Your task to perform on an android device: Toggle the flashlight Image 0: 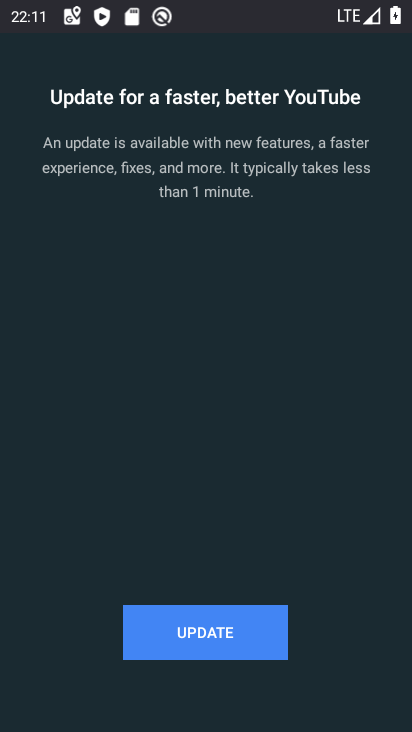
Step 0: press home button
Your task to perform on an android device: Toggle the flashlight Image 1: 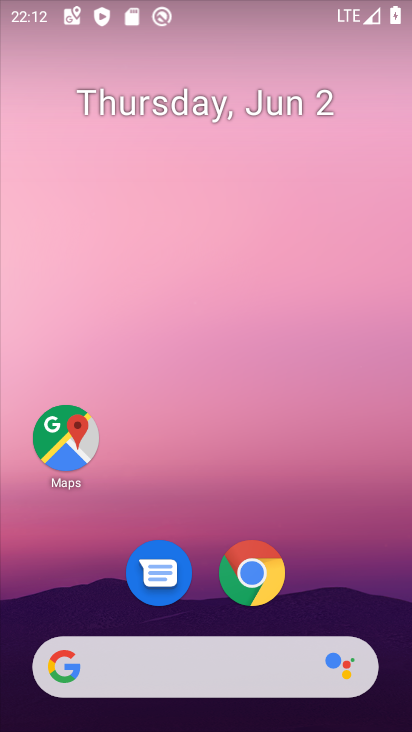
Step 1: drag from (331, 575) to (320, 63)
Your task to perform on an android device: Toggle the flashlight Image 2: 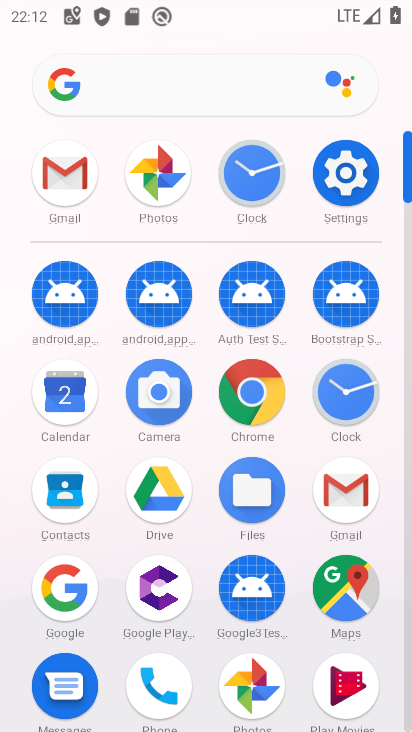
Step 2: click (346, 173)
Your task to perform on an android device: Toggle the flashlight Image 3: 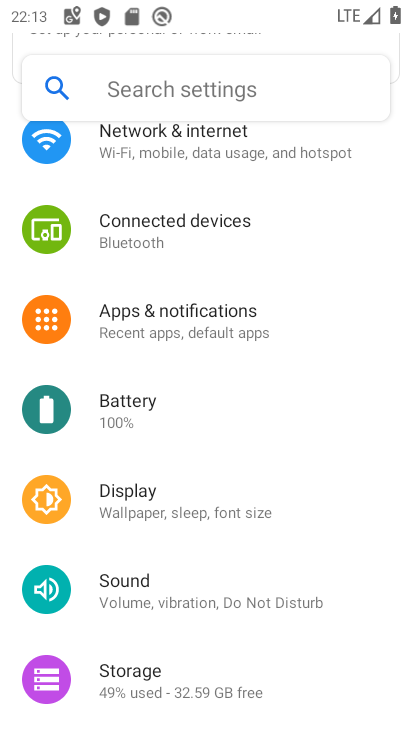
Step 3: click (211, 324)
Your task to perform on an android device: Toggle the flashlight Image 4: 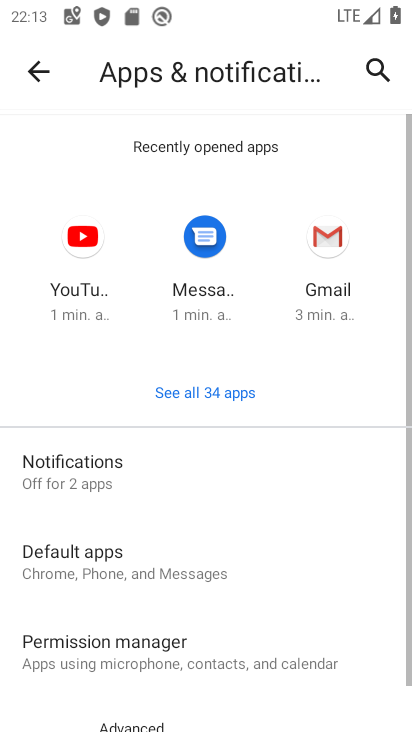
Step 4: drag from (299, 545) to (251, 236)
Your task to perform on an android device: Toggle the flashlight Image 5: 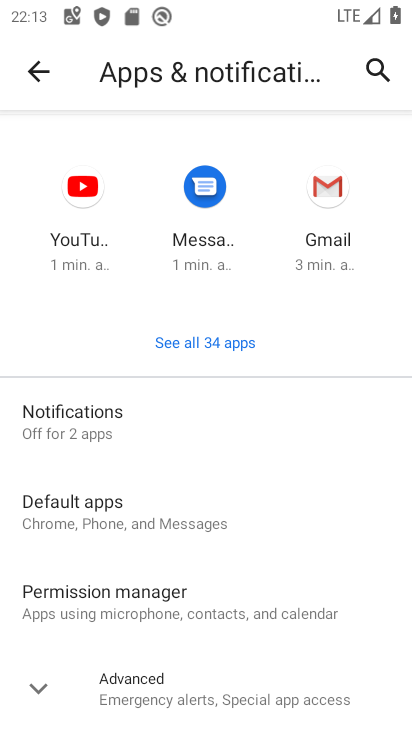
Step 5: click (229, 686)
Your task to perform on an android device: Toggle the flashlight Image 6: 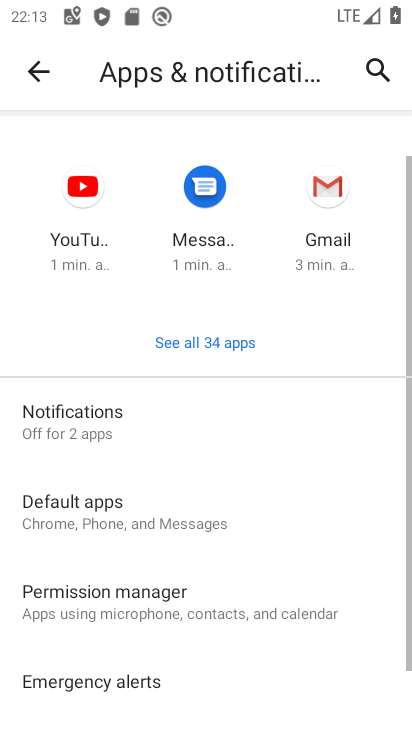
Step 6: drag from (265, 672) to (287, 370)
Your task to perform on an android device: Toggle the flashlight Image 7: 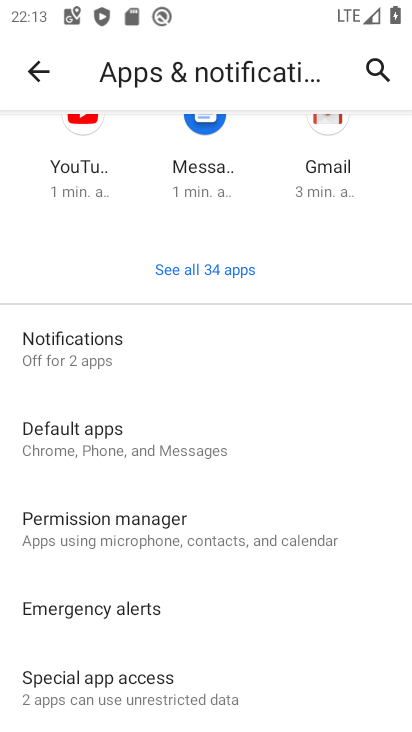
Step 7: click (170, 692)
Your task to perform on an android device: Toggle the flashlight Image 8: 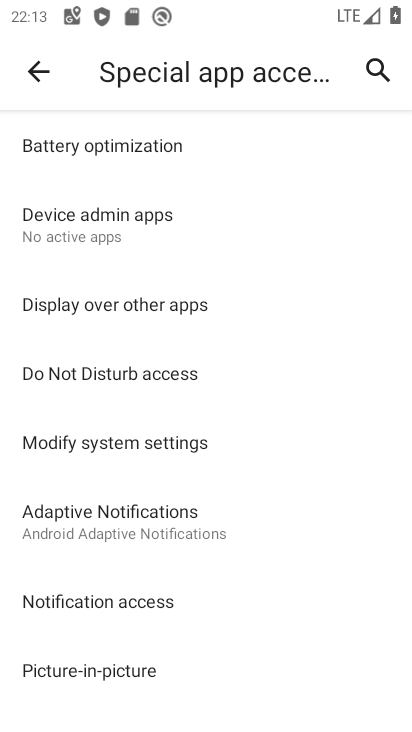
Step 8: task complete